Your task to perform on an android device: Open the clock Image 0: 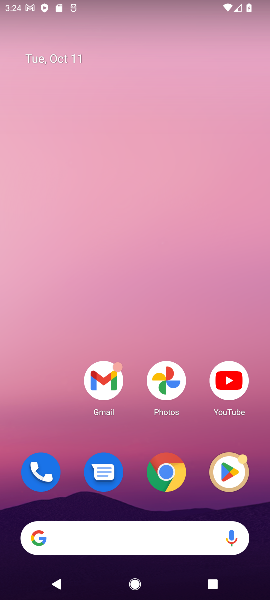
Step 0: drag from (130, 449) to (123, 107)
Your task to perform on an android device: Open the clock Image 1: 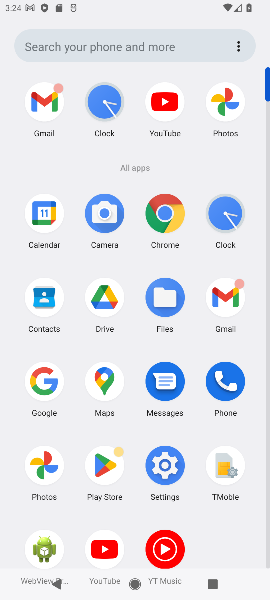
Step 1: click (225, 218)
Your task to perform on an android device: Open the clock Image 2: 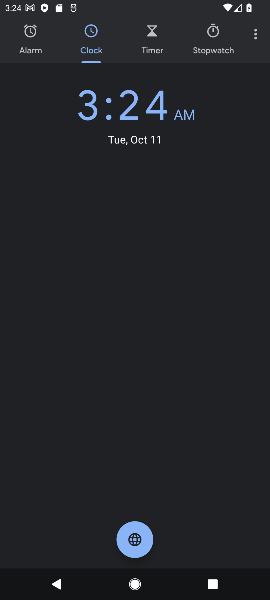
Step 2: task complete